Your task to perform on an android device: turn off javascript in the chrome app Image 0: 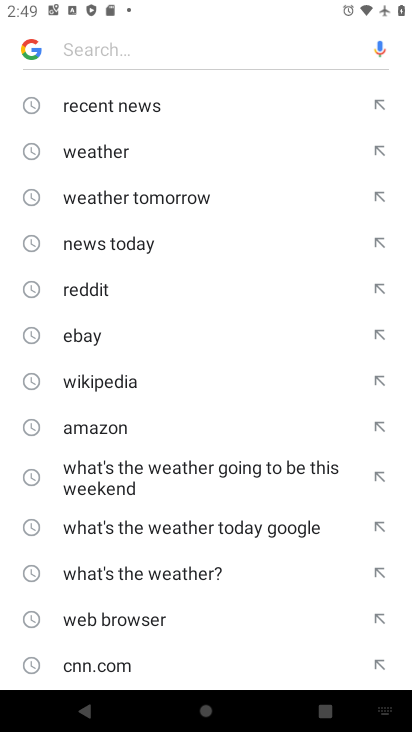
Step 0: press home button
Your task to perform on an android device: turn off javascript in the chrome app Image 1: 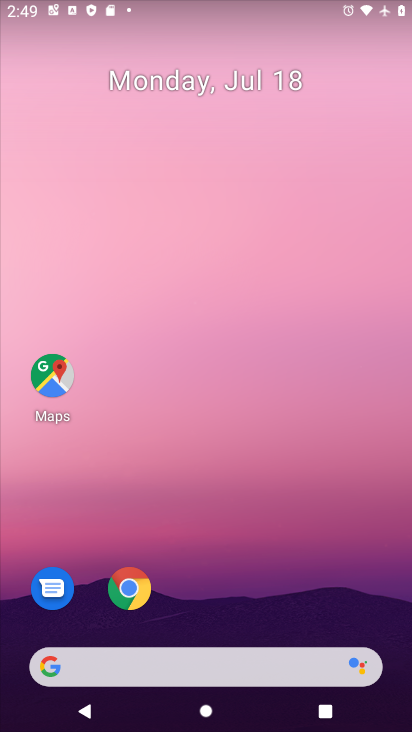
Step 1: drag from (214, 649) to (309, 133)
Your task to perform on an android device: turn off javascript in the chrome app Image 2: 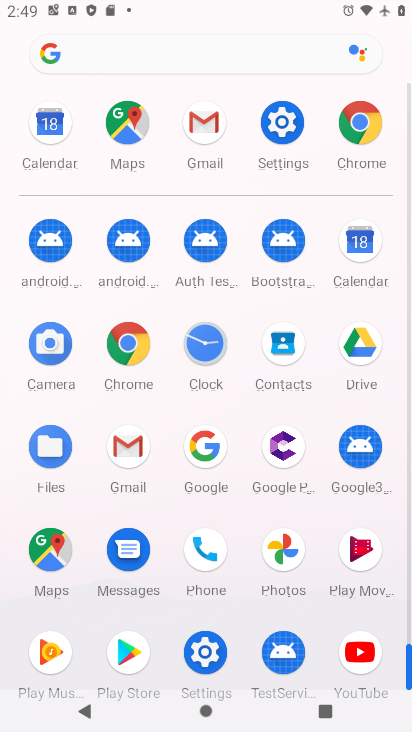
Step 2: click (363, 127)
Your task to perform on an android device: turn off javascript in the chrome app Image 3: 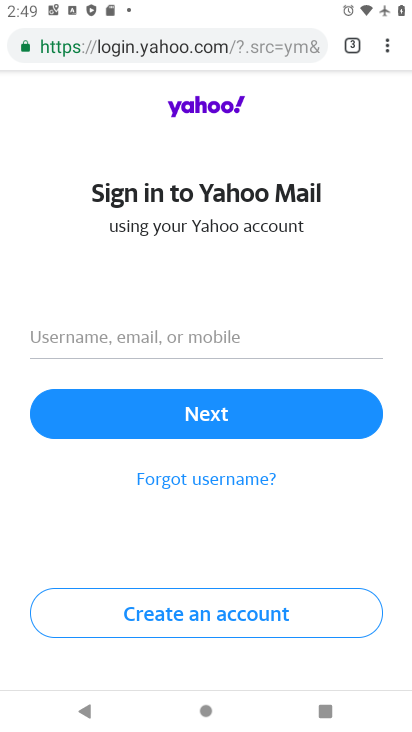
Step 3: click (386, 53)
Your task to perform on an android device: turn off javascript in the chrome app Image 4: 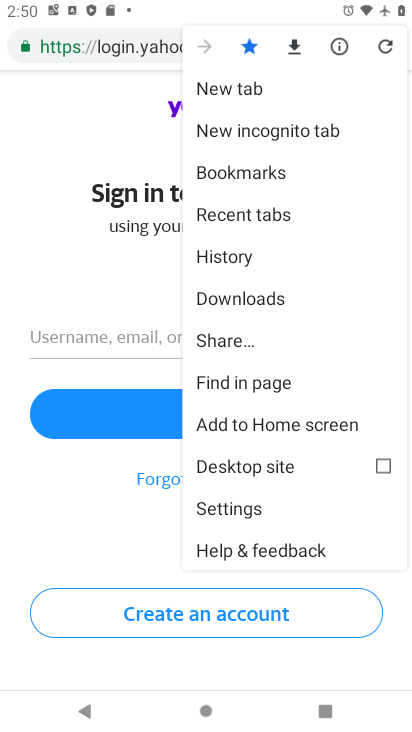
Step 4: click (252, 509)
Your task to perform on an android device: turn off javascript in the chrome app Image 5: 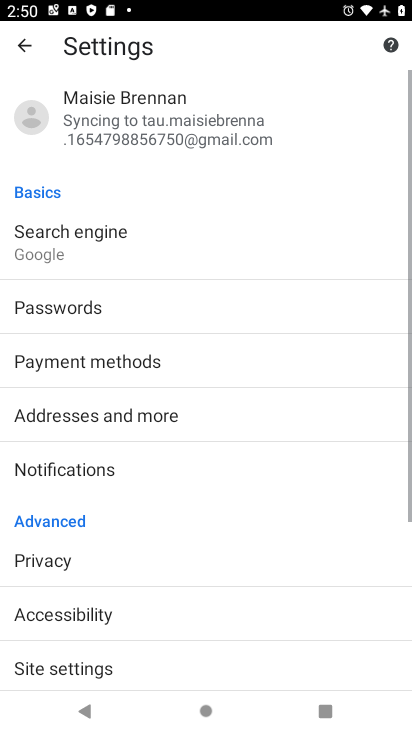
Step 5: drag from (248, 582) to (269, 250)
Your task to perform on an android device: turn off javascript in the chrome app Image 6: 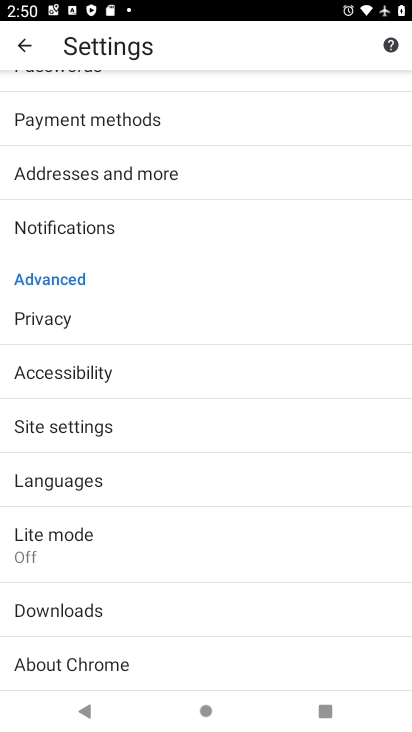
Step 6: click (67, 428)
Your task to perform on an android device: turn off javascript in the chrome app Image 7: 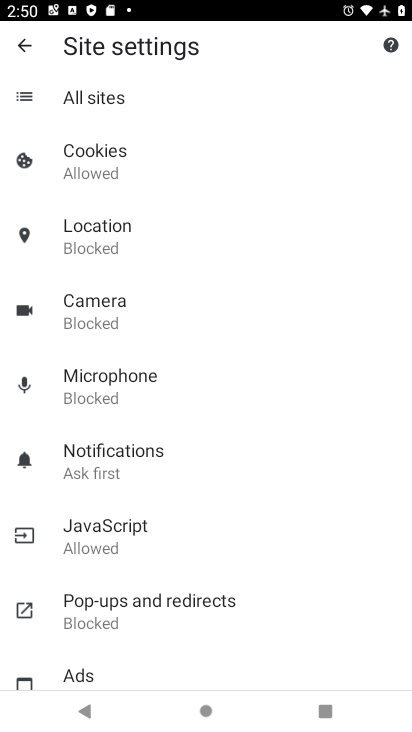
Step 7: drag from (152, 566) to (251, 190)
Your task to perform on an android device: turn off javascript in the chrome app Image 8: 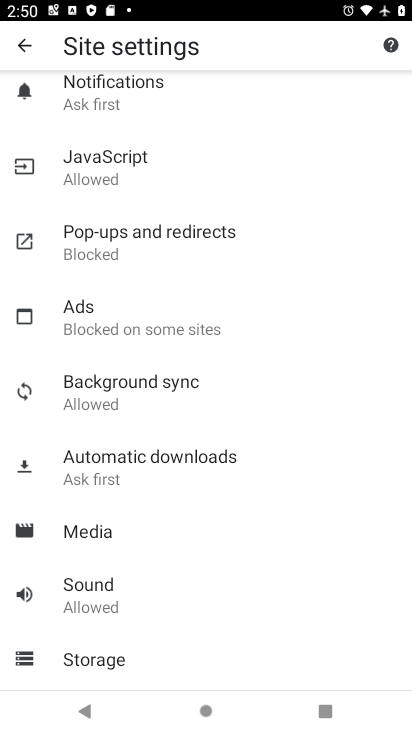
Step 8: click (114, 175)
Your task to perform on an android device: turn off javascript in the chrome app Image 9: 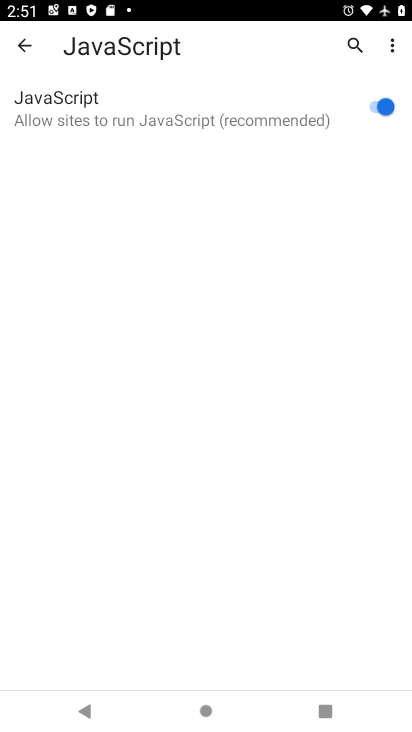
Step 9: click (372, 94)
Your task to perform on an android device: turn off javascript in the chrome app Image 10: 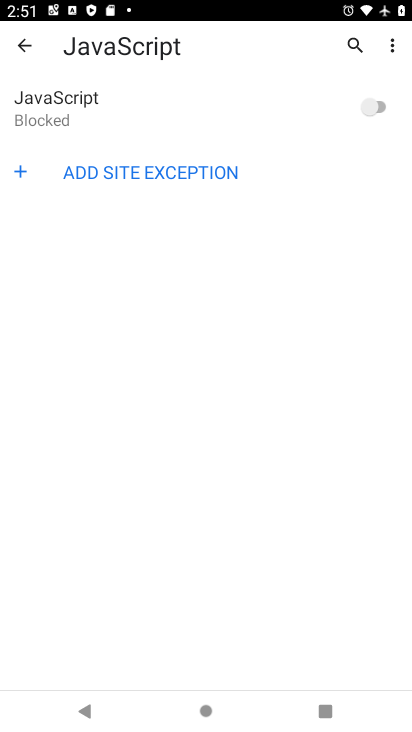
Step 10: task complete